Your task to perform on an android device: Open the phone app and click the voicemail tab. Image 0: 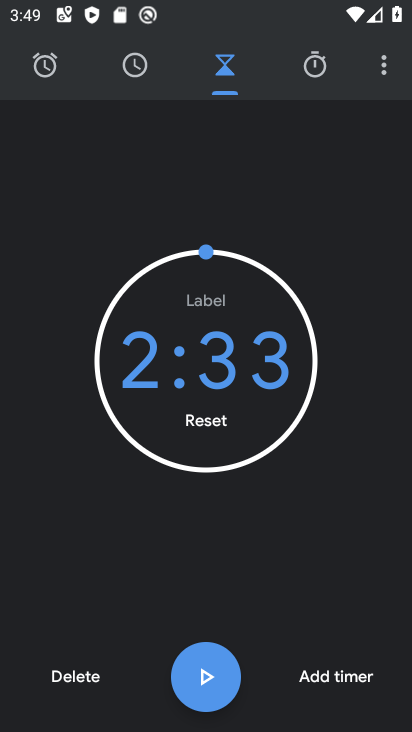
Step 0: press home button
Your task to perform on an android device: Open the phone app and click the voicemail tab. Image 1: 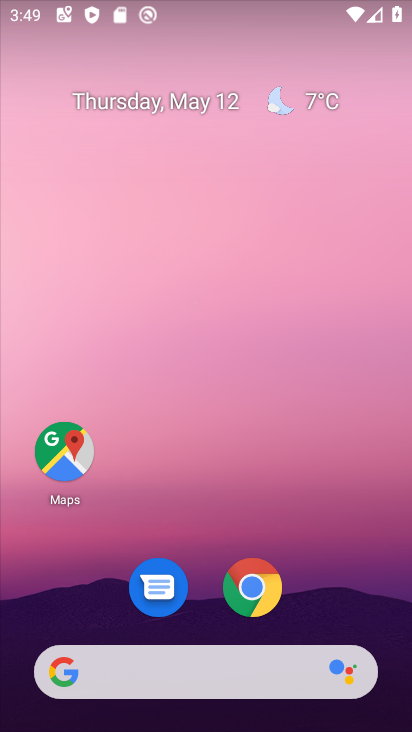
Step 1: drag from (342, 555) to (327, 132)
Your task to perform on an android device: Open the phone app and click the voicemail tab. Image 2: 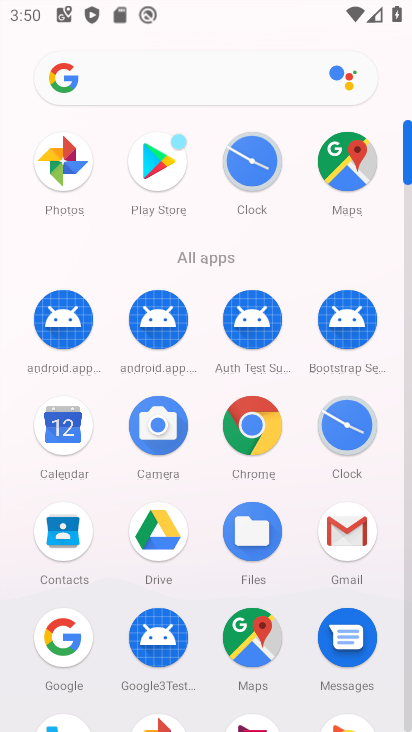
Step 2: drag from (225, 568) to (243, 252)
Your task to perform on an android device: Open the phone app and click the voicemail tab. Image 3: 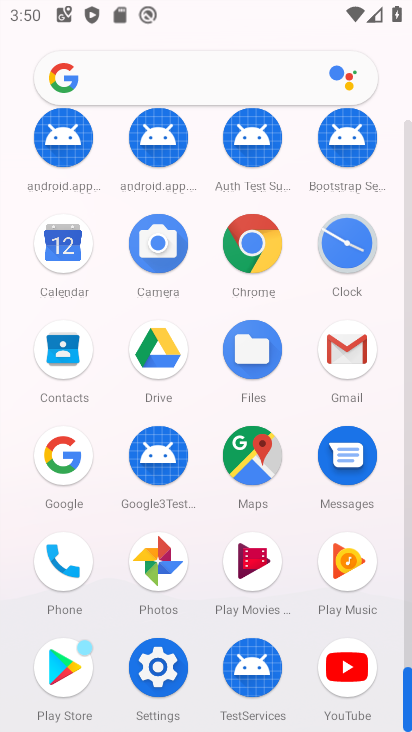
Step 3: drag from (199, 613) to (194, 210)
Your task to perform on an android device: Open the phone app and click the voicemail tab. Image 4: 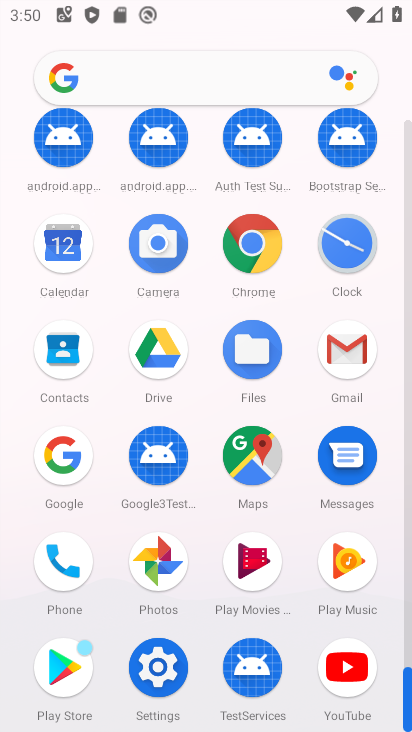
Step 4: click (71, 564)
Your task to perform on an android device: Open the phone app and click the voicemail tab. Image 5: 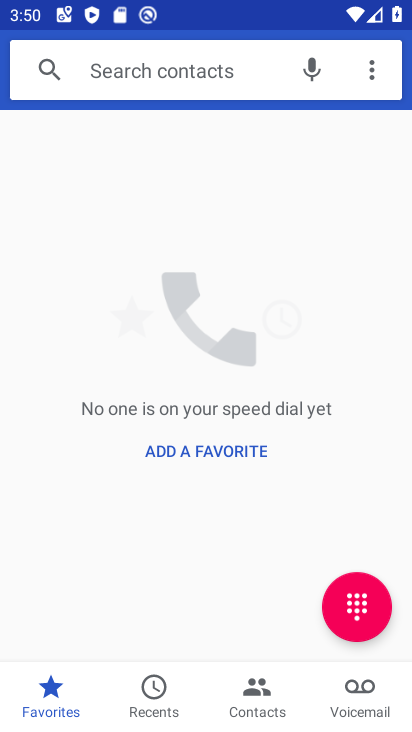
Step 5: click (356, 690)
Your task to perform on an android device: Open the phone app and click the voicemail tab. Image 6: 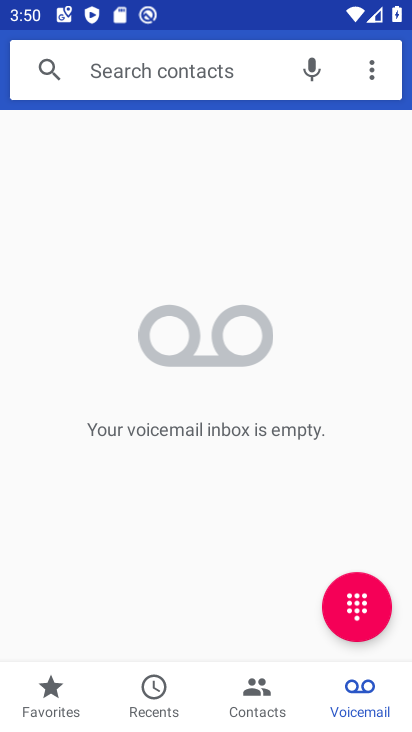
Step 6: task complete